Your task to perform on an android device: install app "Facebook" Image 0: 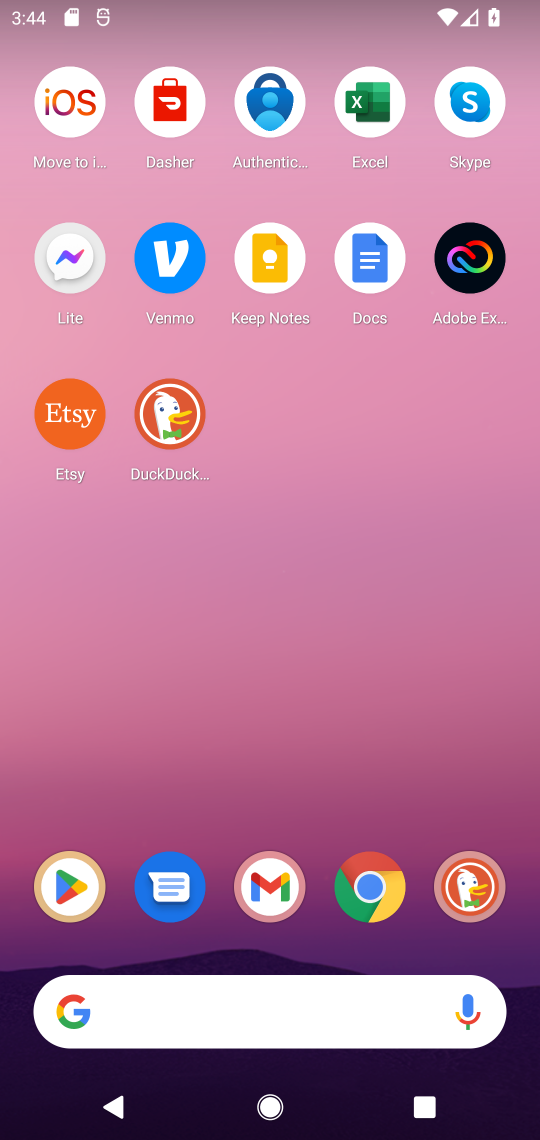
Step 0: click (75, 898)
Your task to perform on an android device: install app "Facebook" Image 1: 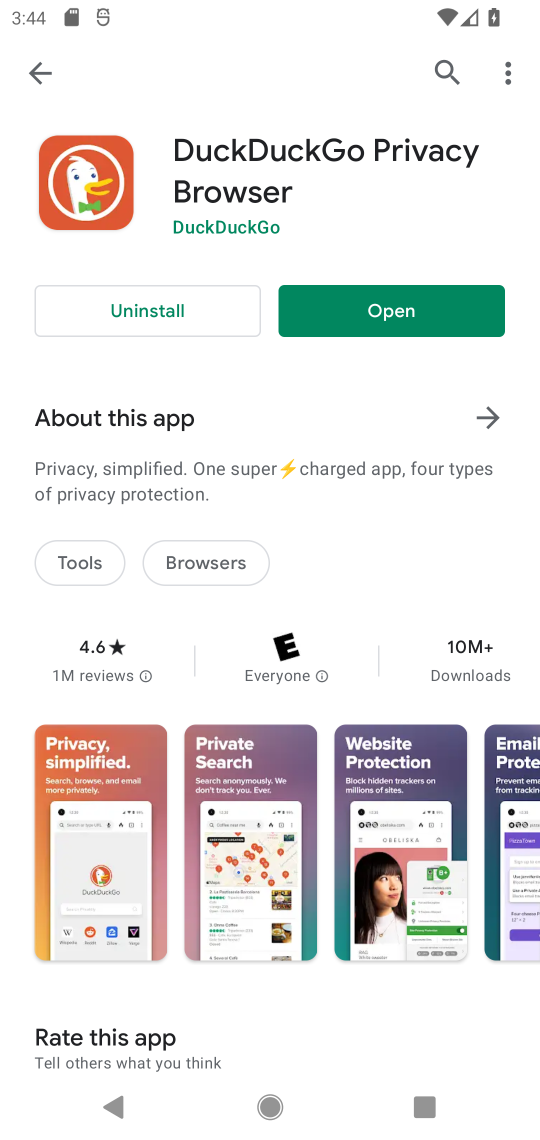
Step 1: click (47, 65)
Your task to perform on an android device: install app "Facebook" Image 2: 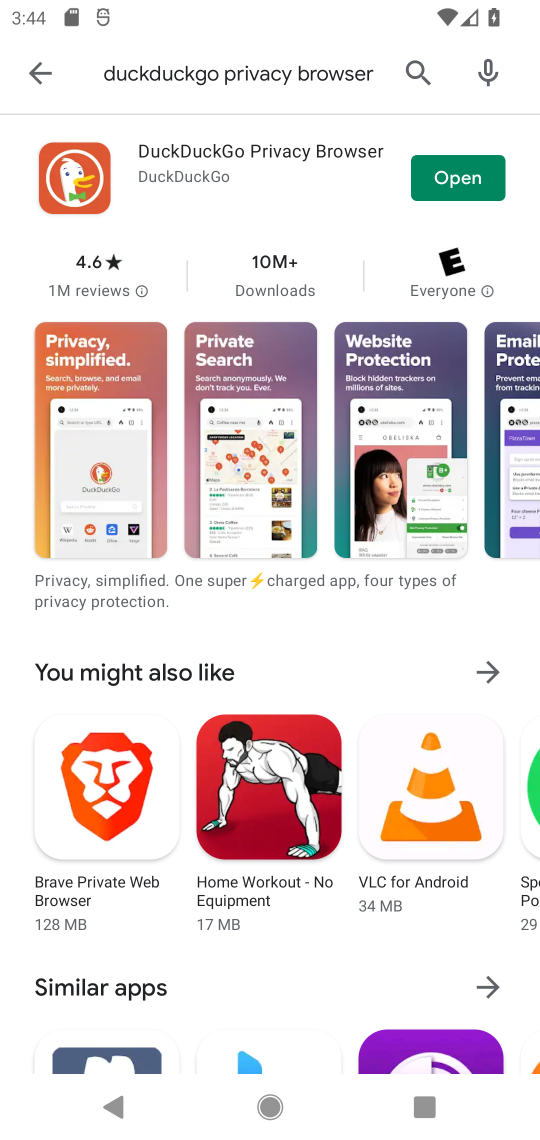
Step 2: click (34, 72)
Your task to perform on an android device: install app "Facebook" Image 3: 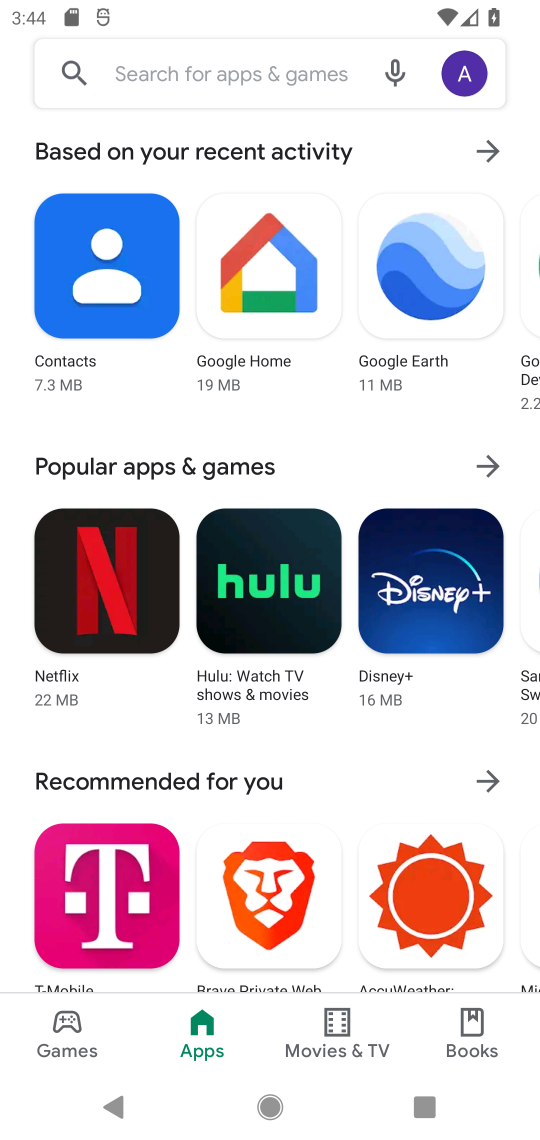
Step 3: click (136, 65)
Your task to perform on an android device: install app "Facebook" Image 4: 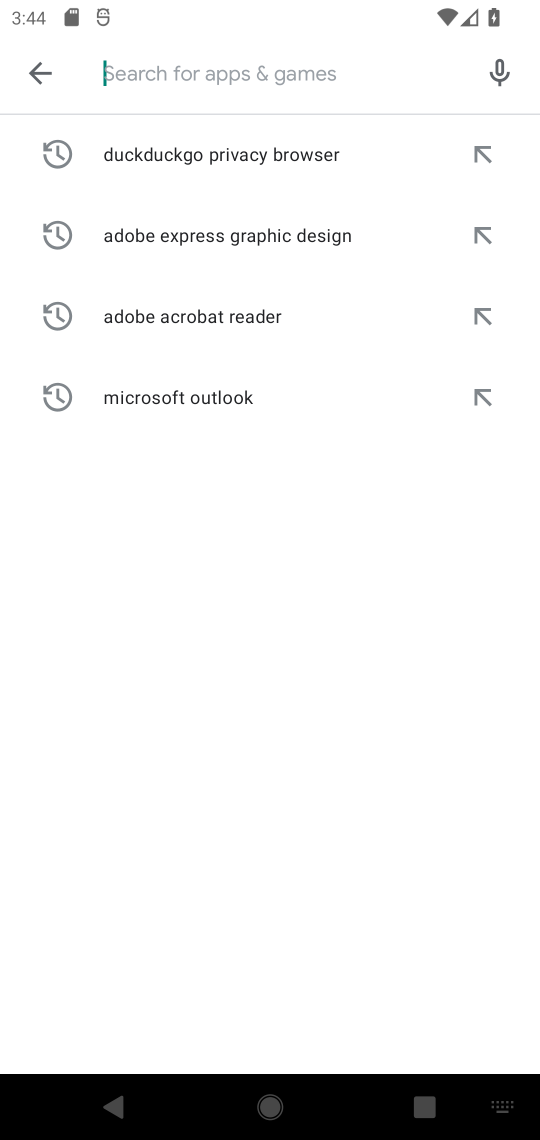
Step 4: type "Facebook"
Your task to perform on an android device: install app "Facebook" Image 5: 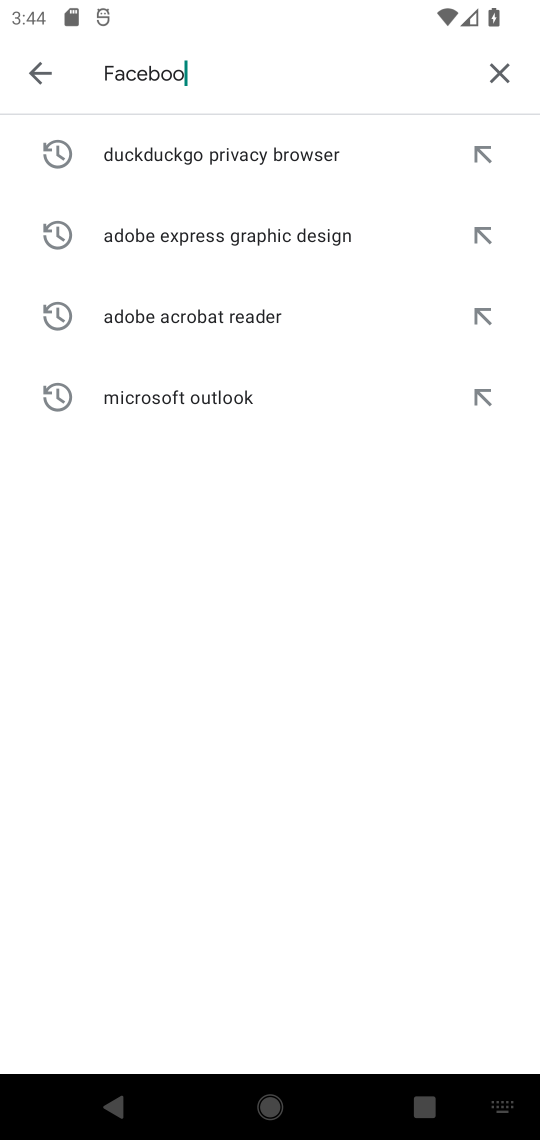
Step 5: type ""
Your task to perform on an android device: install app "Facebook" Image 6: 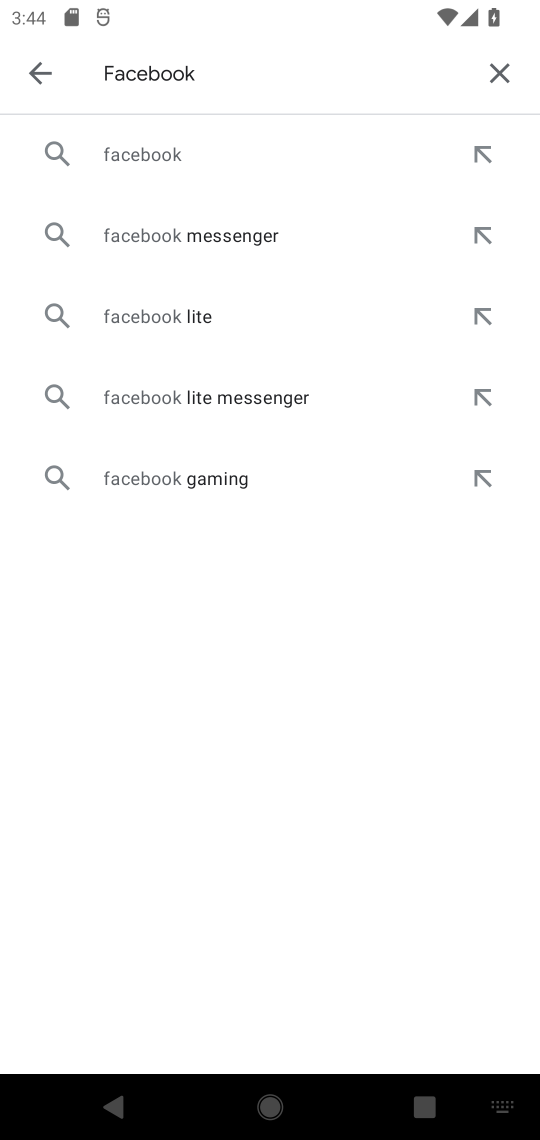
Step 6: click (136, 152)
Your task to perform on an android device: install app "Facebook" Image 7: 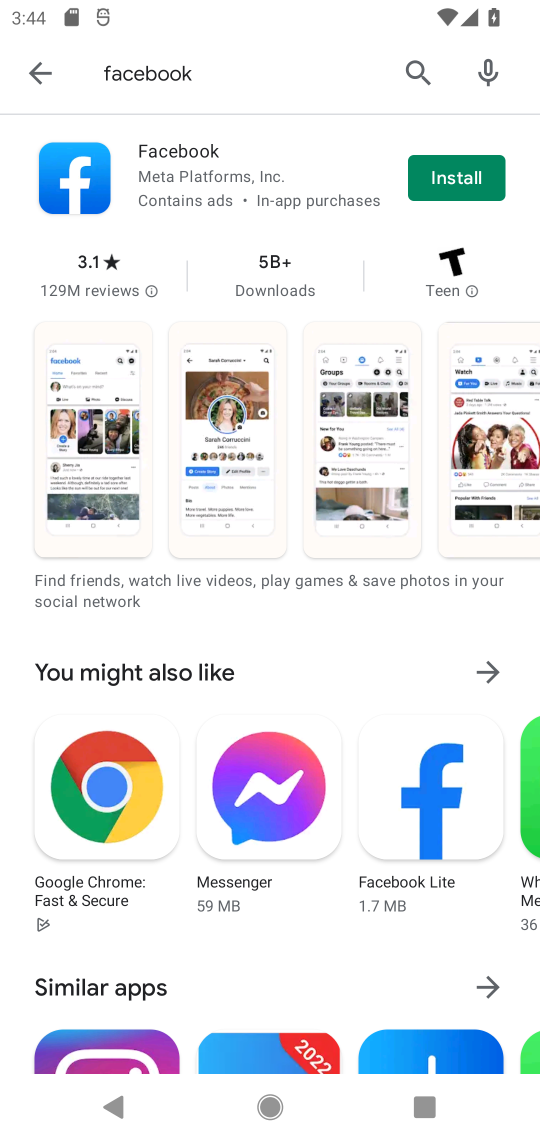
Step 7: click (454, 170)
Your task to perform on an android device: install app "Facebook" Image 8: 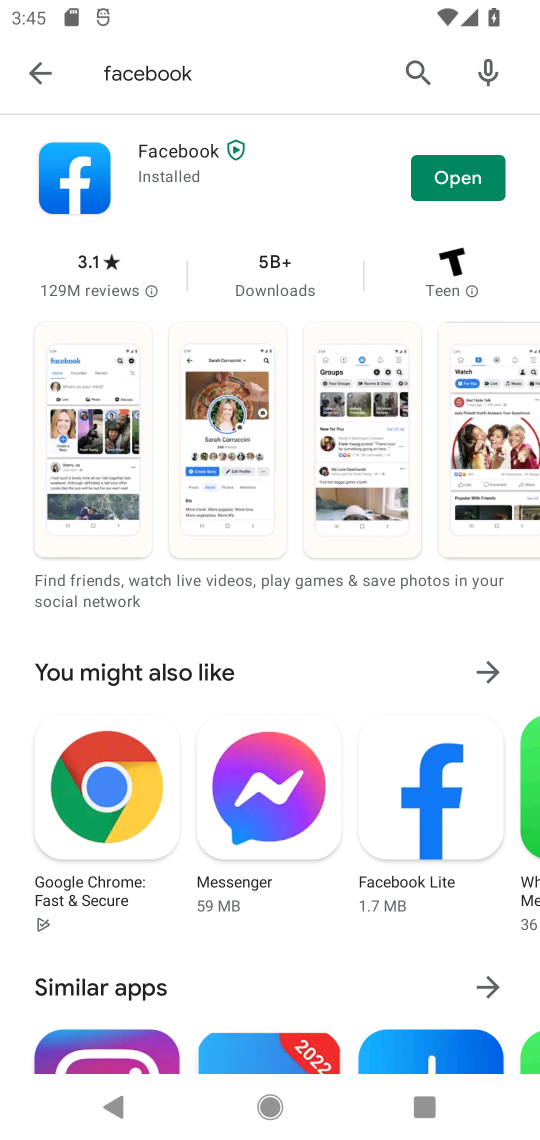
Step 8: click (471, 187)
Your task to perform on an android device: install app "Facebook" Image 9: 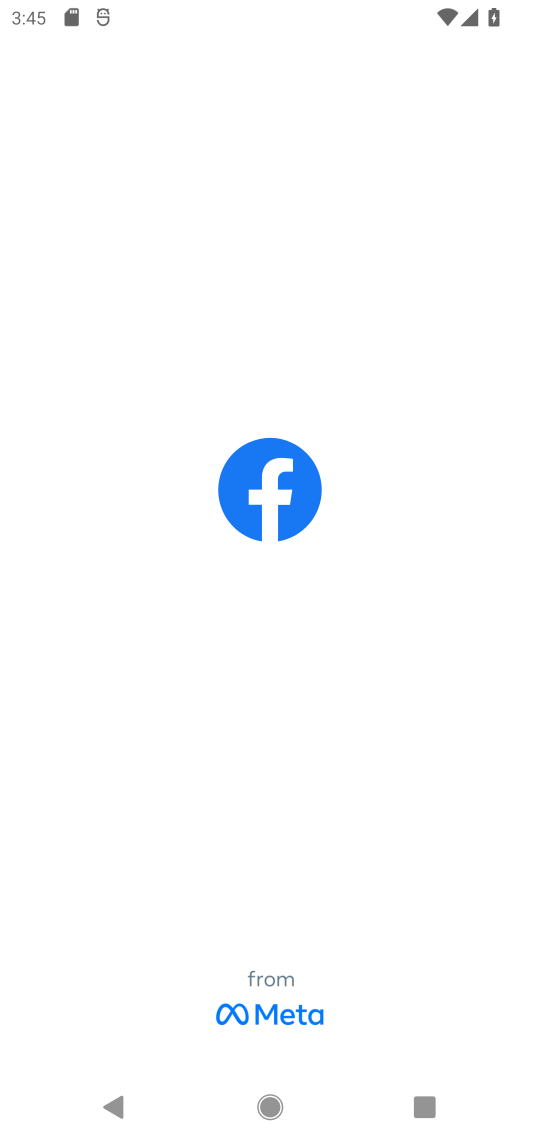
Step 9: task complete